Your task to perform on an android device: Show me popular videos on Youtube Image 0: 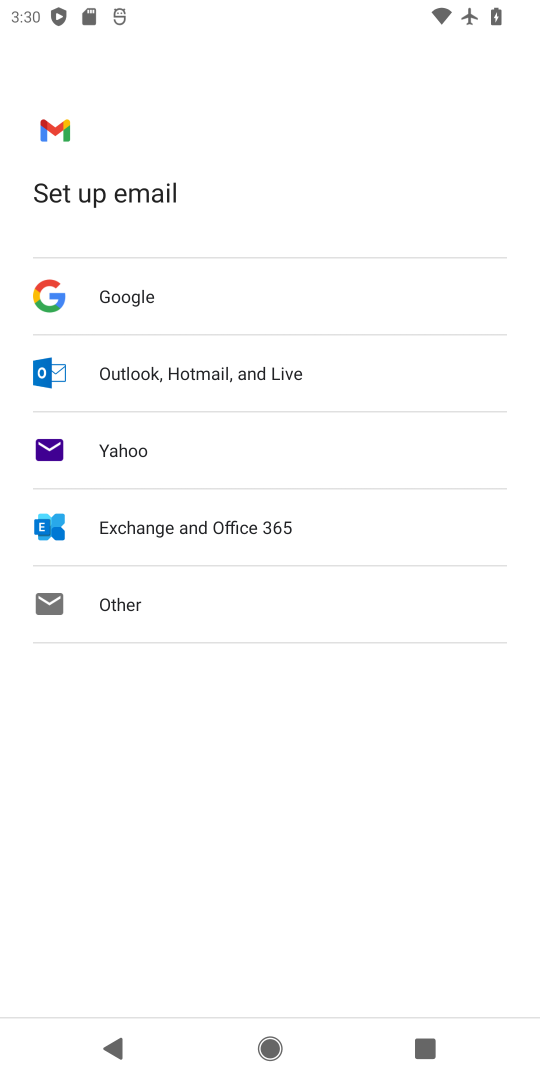
Step 0: press home button
Your task to perform on an android device: Show me popular videos on Youtube Image 1: 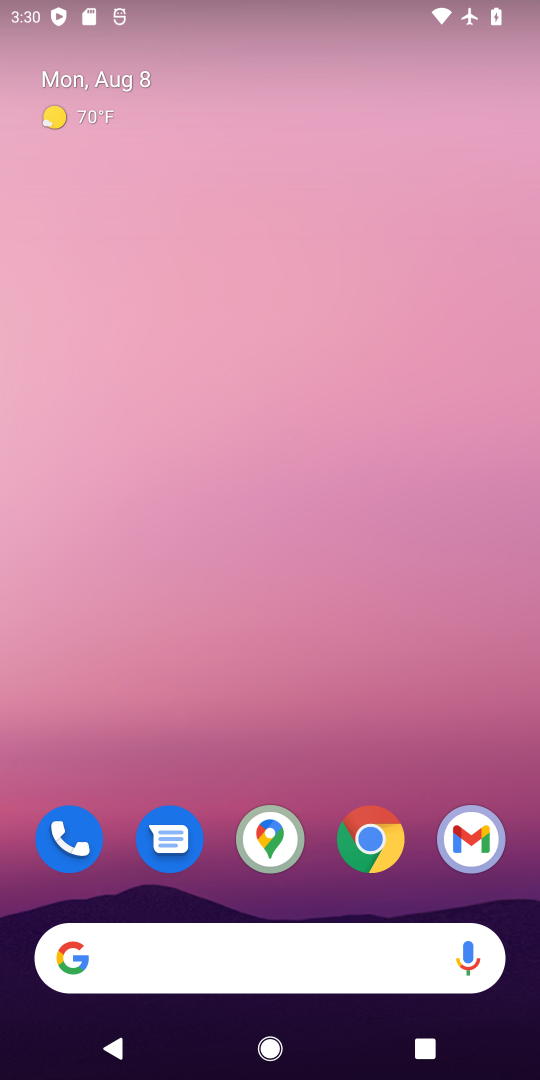
Step 1: drag from (417, 762) to (459, 260)
Your task to perform on an android device: Show me popular videos on Youtube Image 2: 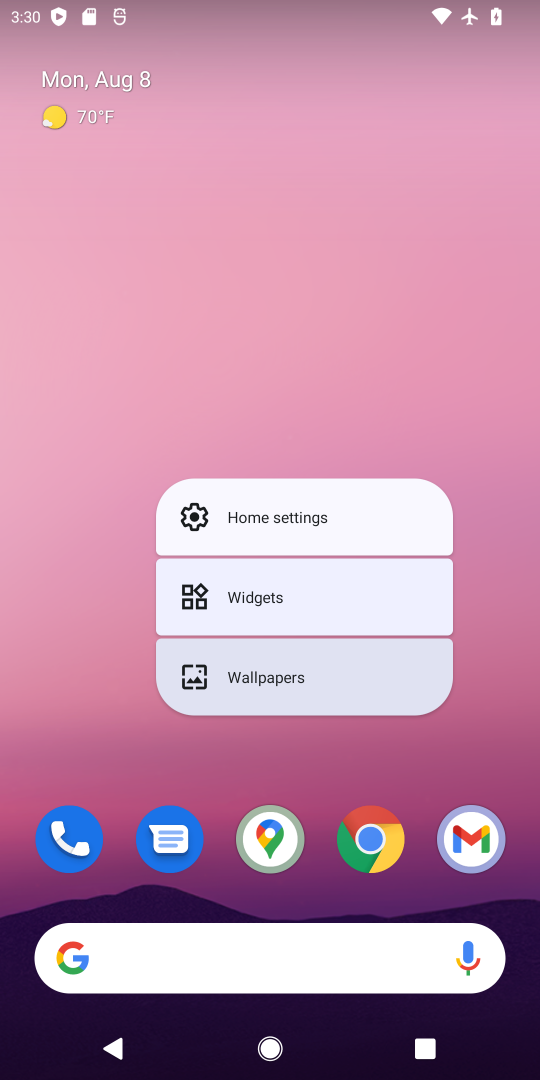
Step 2: click (518, 658)
Your task to perform on an android device: Show me popular videos on Youtube Image 3: 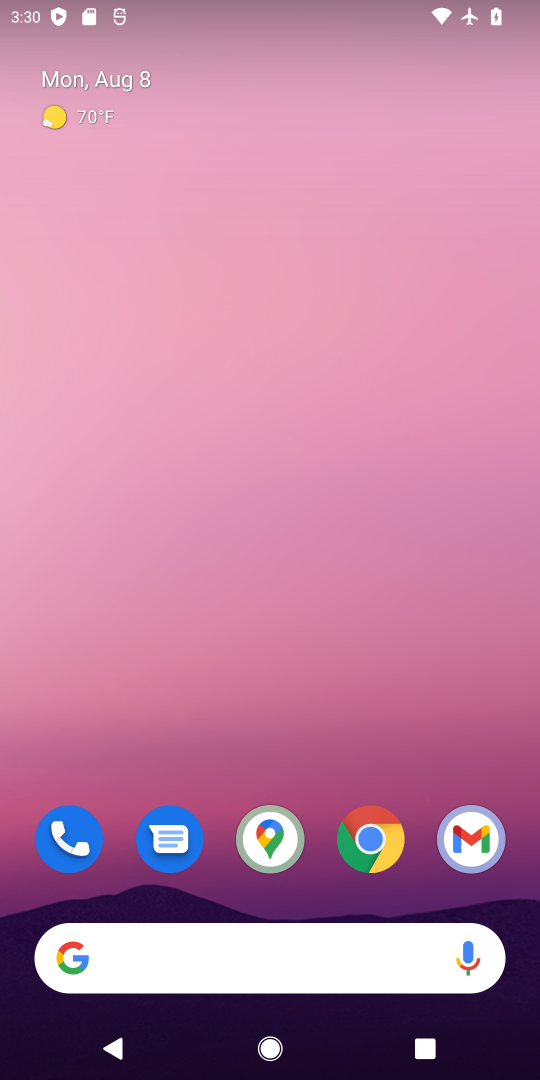
Step 3: drag from (416, 769) to (478, 161)
Your task to perform on an android device: Show me popular videos on Youtube Image 4: 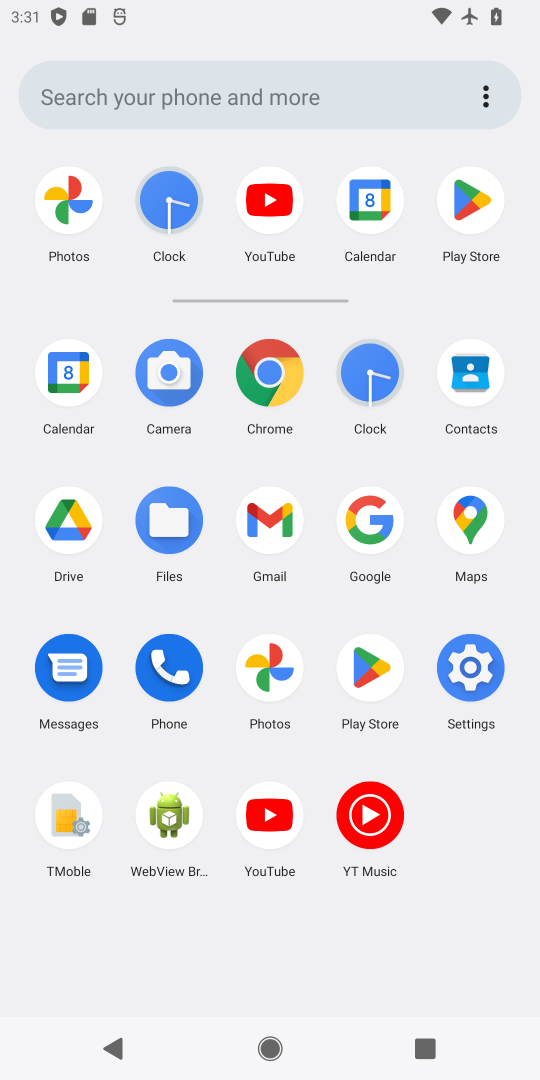
Step 4: click (267, 820)
Your task to perform on an android device: Show me popular videos on Youtube Image 5: 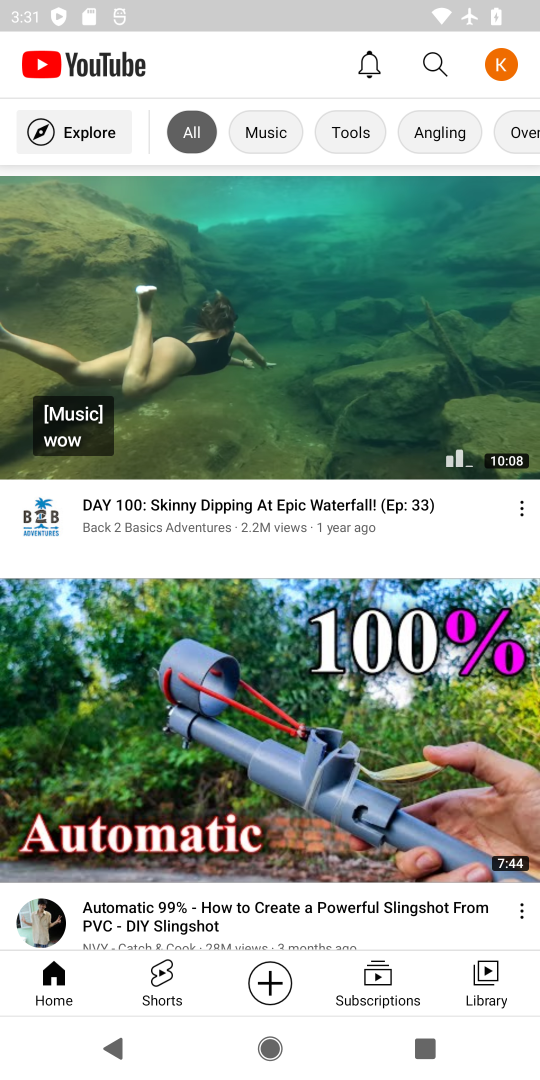
Step 5: task complete